Your task to perform on an android device: Open internet settings Image 0: 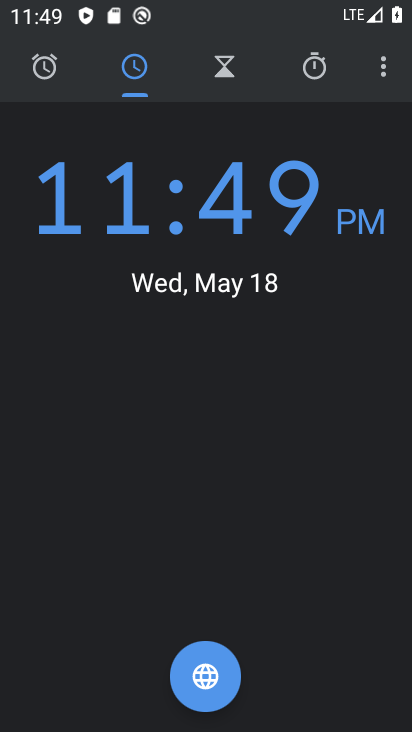
Step 0: press home button
Your task to perform on an android device: Open internet settings Image 1: 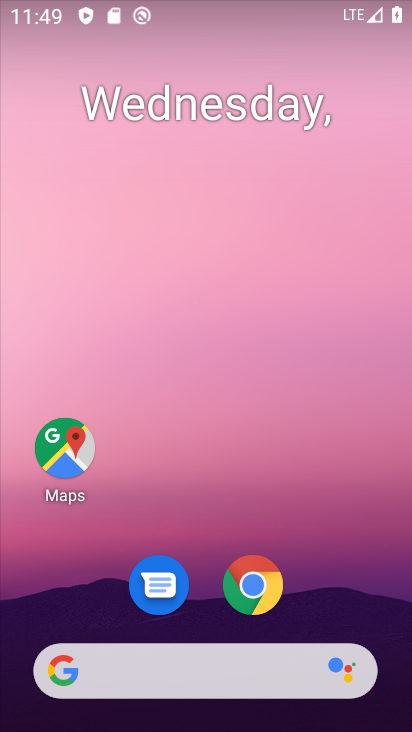
Step 1: drag from (205, 495) to (234, 61)
Your task to perform on an android device: Open internet settings Image 2: 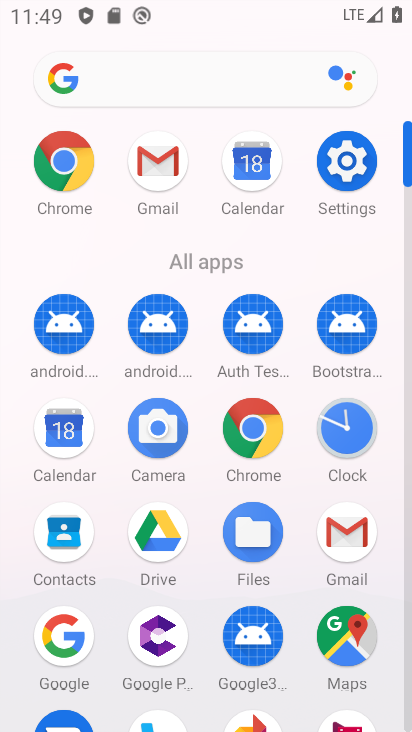
Step 2: click (345, 159)
Your task to perform on an android device: Open internet settings Image 3: 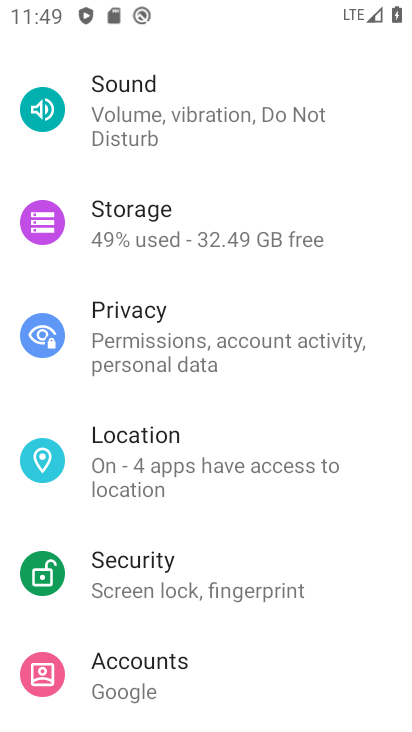
Step 3: drag from (245, 177) to (291, 624)
Your task to perform on an android device: Open internet settings Image 4: 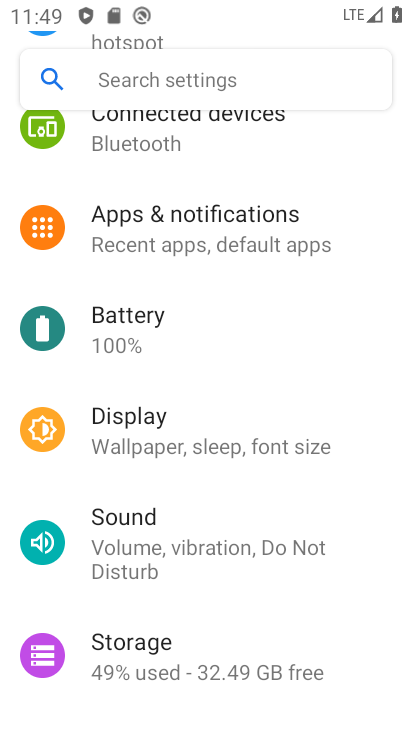
Step 4: drag from (253, 309) to (252, 564)
Your task to perform on an android device: Open internet settings Image 5: 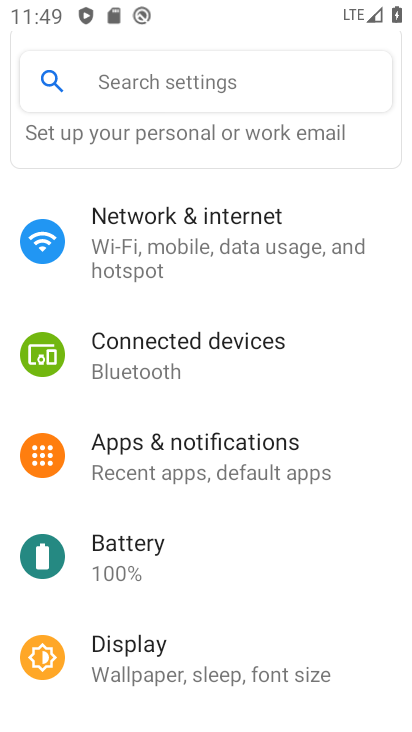
Step 5: click (235, 238)
Your task to perform on an android device: Open internet settings Image 6: 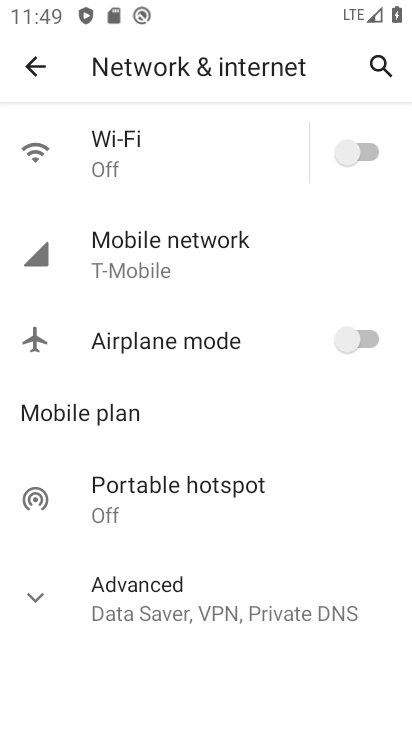
Step 6: task complete